Your task to perform on an android device: remove spam from my inbox in the gmail app Image 0: 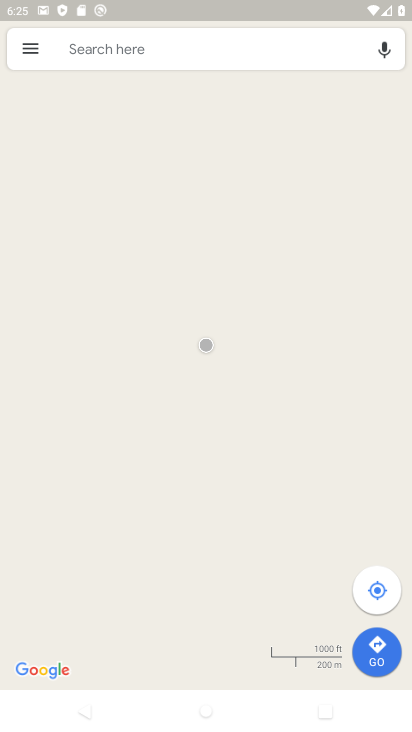
Step 0: press home button
Your task to perform on an android device: remove spam from my inbox in the gmail app Image 1: 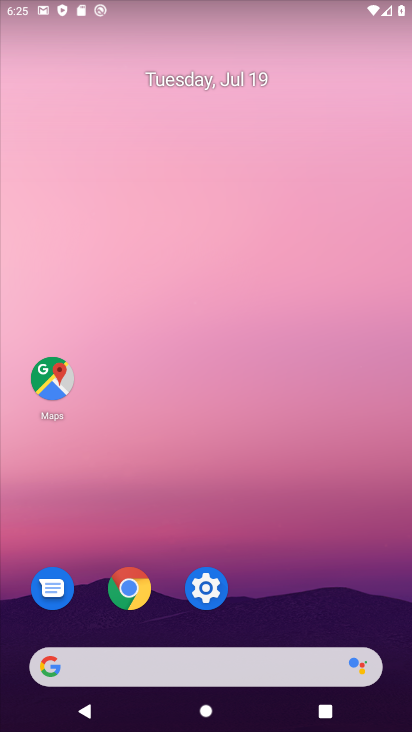
Step 1: drag from (317, 446) to (20, 311)
Your task to perform on an android device: remove spam from my inbox in the gmail app Image 2: 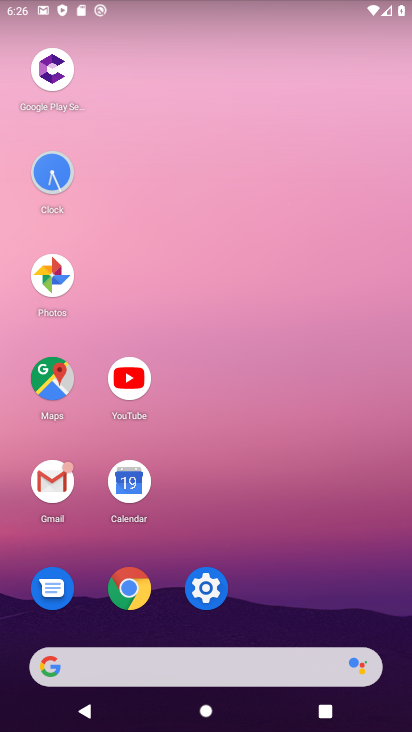
Step 2: click (40, 484)
Your task to perform on an android device: remove spam from my inbox in the gmail app Image 3: 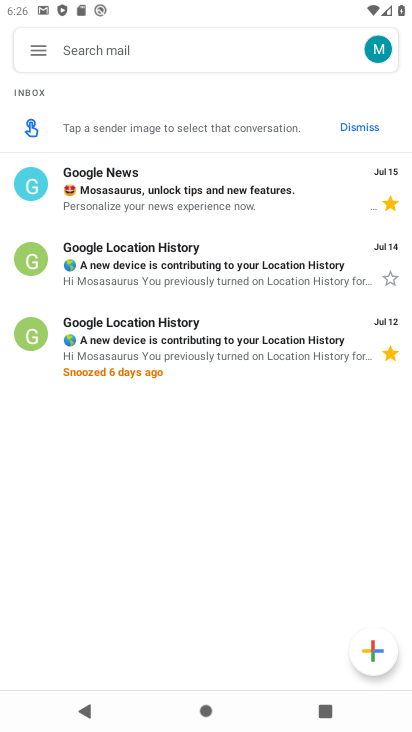
Step 3: click (37, 49)
Your task to perform on an android device: remove spam from my inbox in the gmail app Image 4: 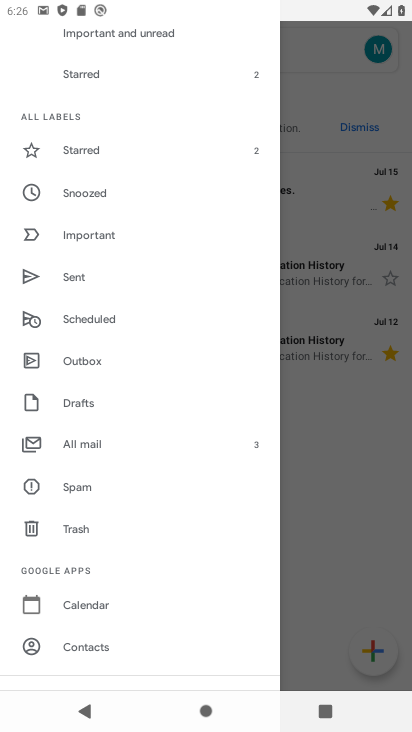
Step 4: click (74, 483)
Your task to perform on an android device: remove spam from my inbox in the gmail app Image 5: 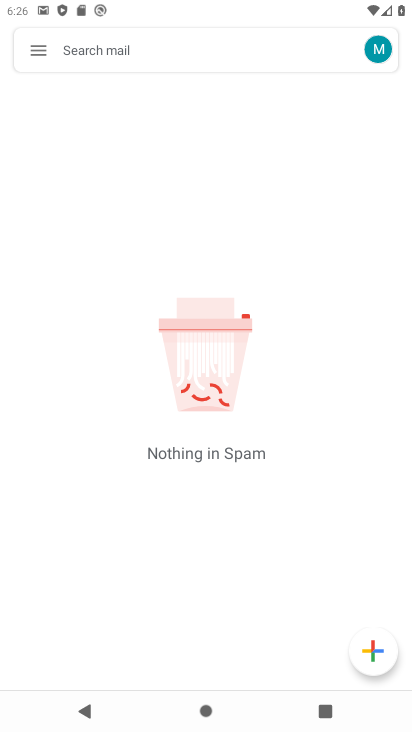
Step 5: task complete